Your task to perform on an android device: Go to CNN.com Image 0: 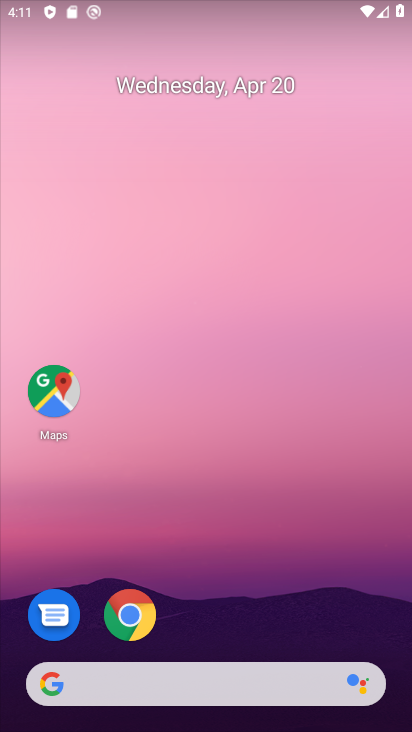
Step 0: drag from (275, 307) to (238, 47)
Your task to perform on an android device: Go to CNN.com Image 1: 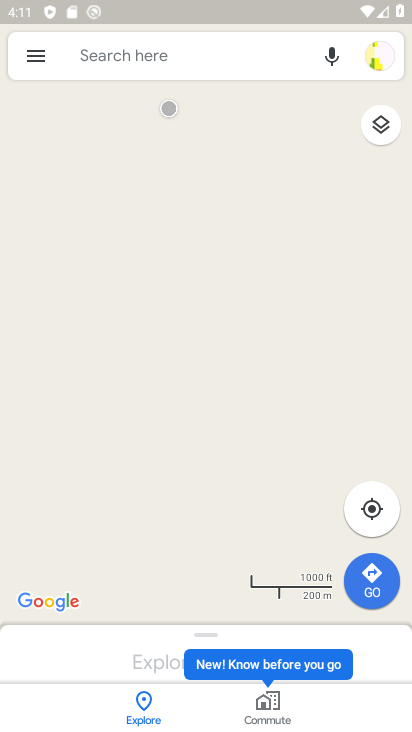
Step 1: press home button
Your task to perform on an android device: Go to CNN.com Image 2: 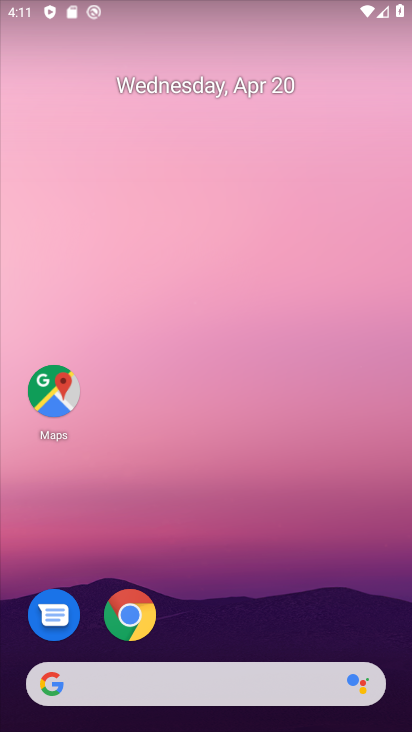
Step 2: drag from (320, 594) to (195, 30)
Your task to perform on an android device: Go to CNN.com Image 3: 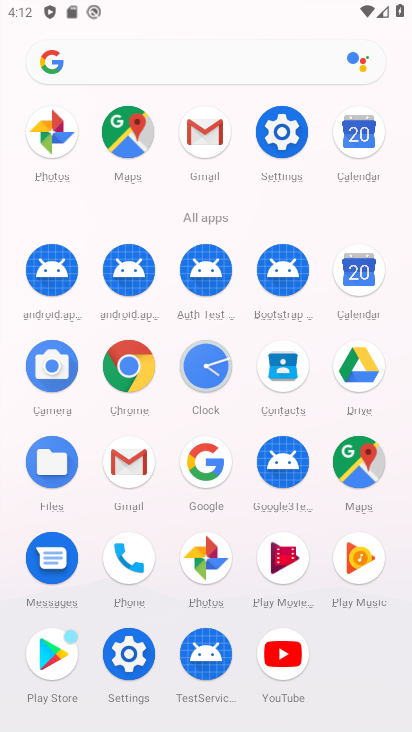
Step 3: click (132, 371)
Your task to perform on an android device: Go to CNN.com Image 4: 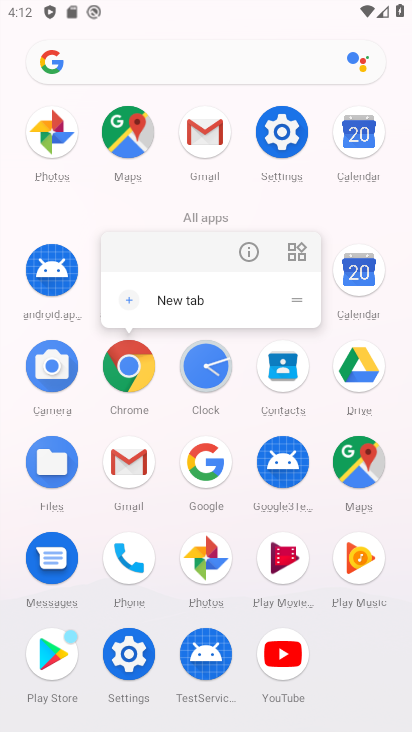
Step 4: click (128, 368)
Your task to perform on an android device: Go to CNN.com Image 5: 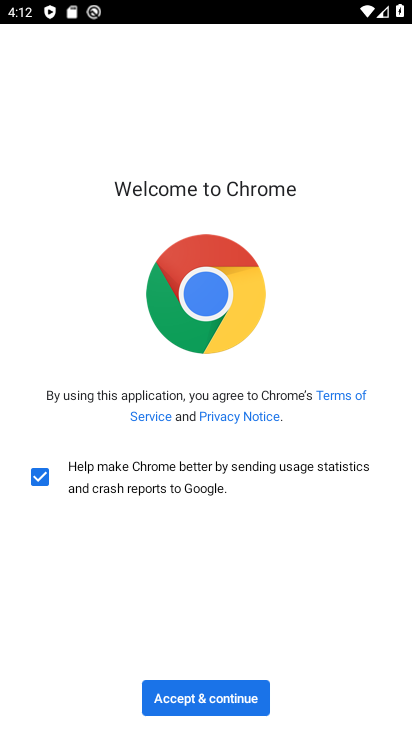
Step 5: click (166, 704)
Your task to perform on an android device: Go to CNN.com Image 6: 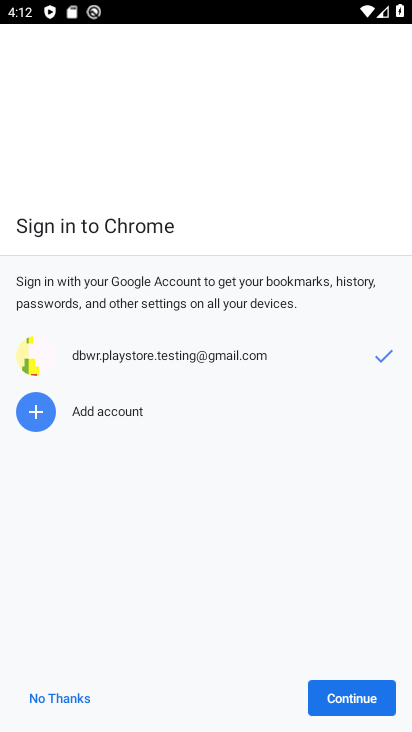
Step 6: click (354, 698)
Your task to perform on an android device: Go to CNN.com Image 7: 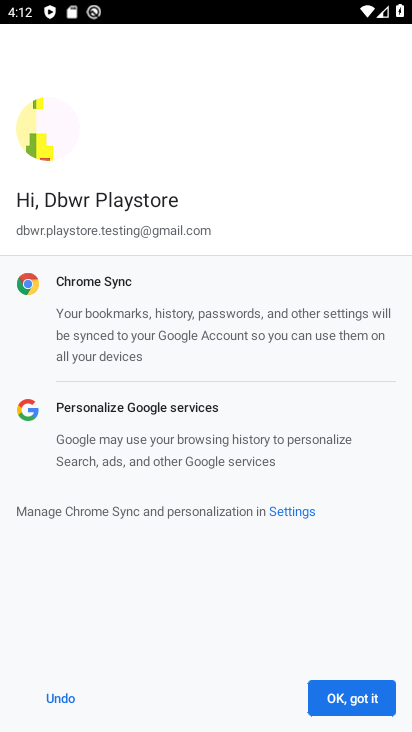
Step 7: click (354, 698)
Your task to perform on an android device: Go to CNN.com Image 8: 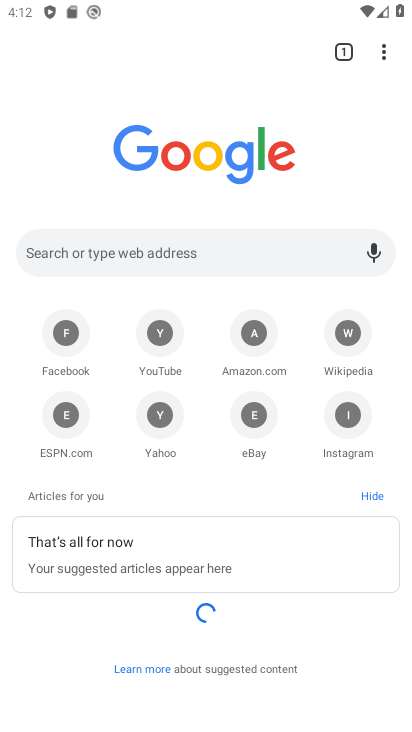
Step 8: click (184, 259)
Your task to perform on an android device: Go to CNN.com Image 9: 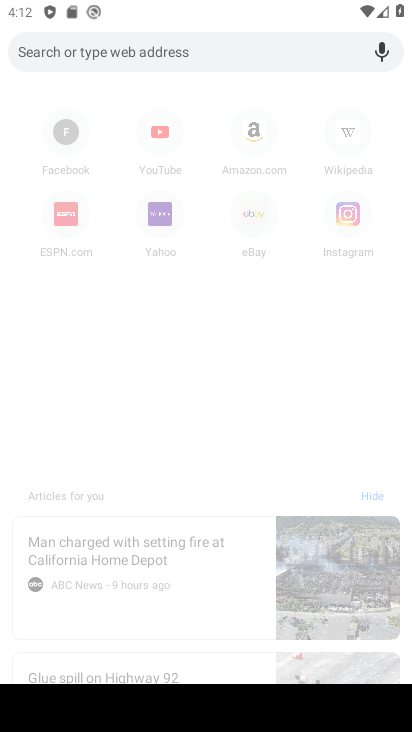
Step 9: type "cnn.com"
Your task to perform on an android device: Go to CNN.com Image 10: 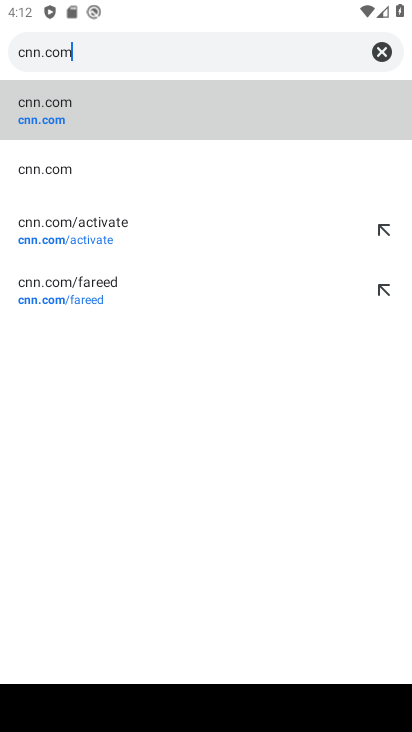
Step 10: click (188, 131)
Your task to perform on an android device: Go to CNN.com Image 11: 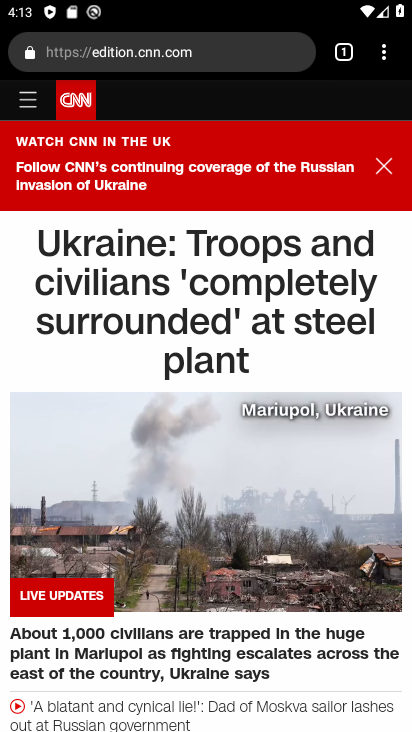
Step 11: task complete